Your task to perform on an android device: What's on my calendar tomorrow? Image 0: 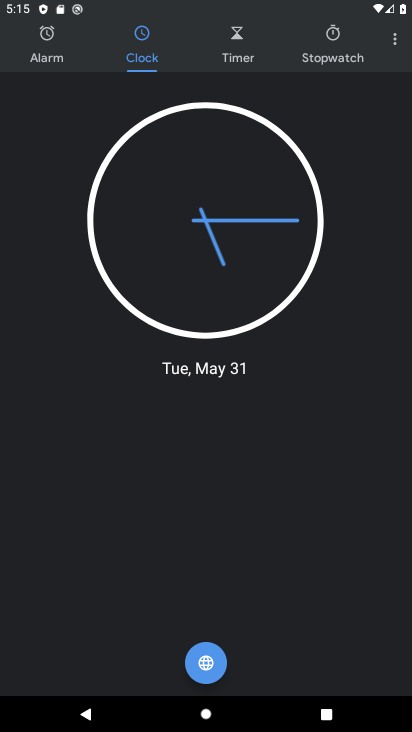
Step 0: press home button
Your task to perform on an android device: What's on my calendar tomorrow? Image 1: 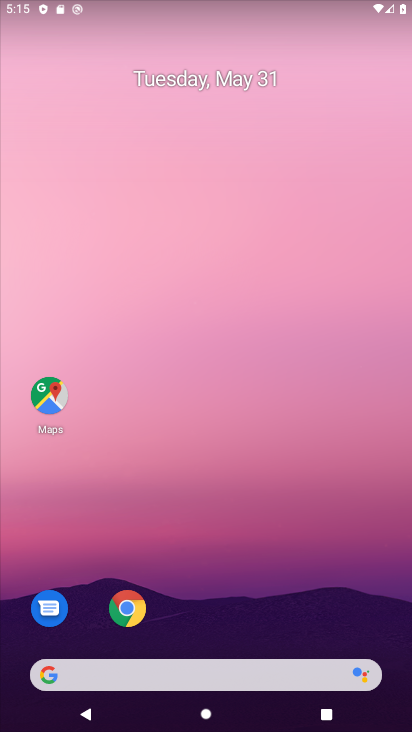
Step 1: drag from (234, 540) to (207, 52)
Your task to perform on an android device: What's on my calendar tomorrow? Image 2: 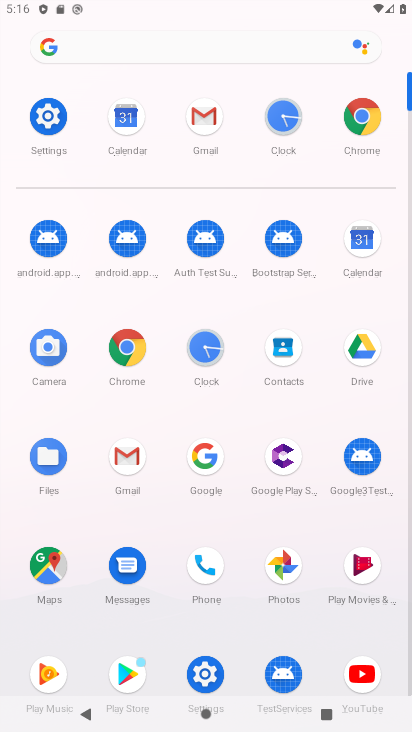
Step 2: click (364, 240)
Your task to perform on an android device: What's on my calendar tomorrow? Image 3: 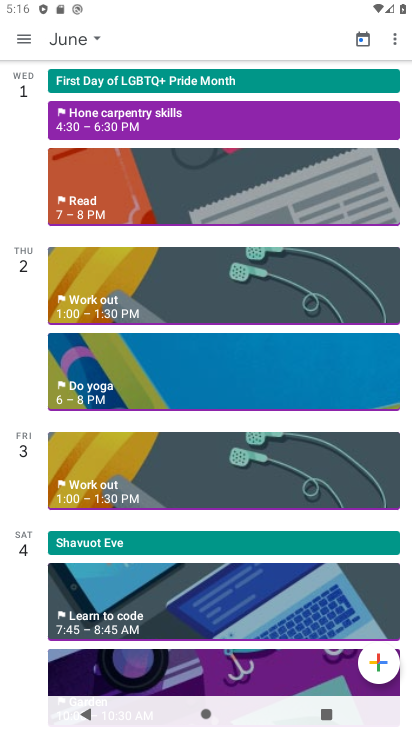
Step 3: click (170, 114)
Your task to perform on an android device: What's on my calendar tomorrow? Image 4: 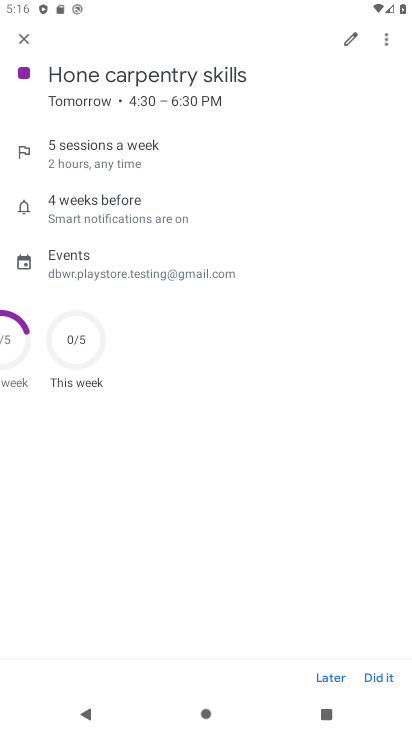
Step 4: task complete